Your task to perform on an android device: turn off location Image 0: 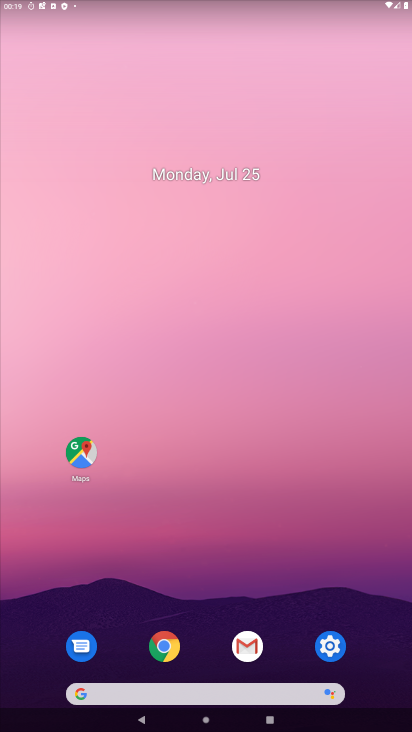
Step 0: click (336, 638)
Your task to perform on an android device: turn off location Image 1: 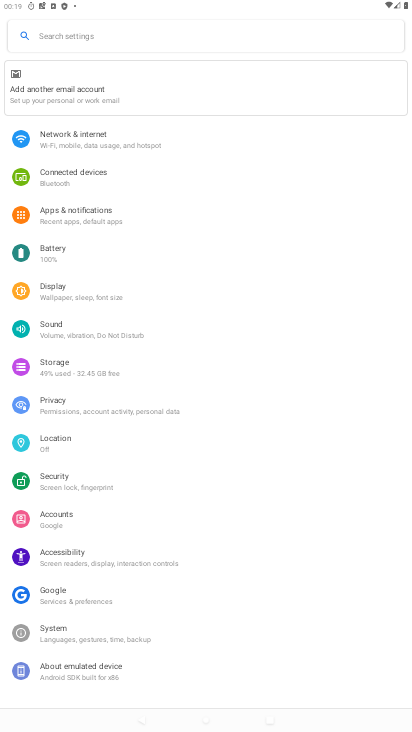
Step 1: click (58, 442)
Your task to perform on an android device: turn off location Image 2: 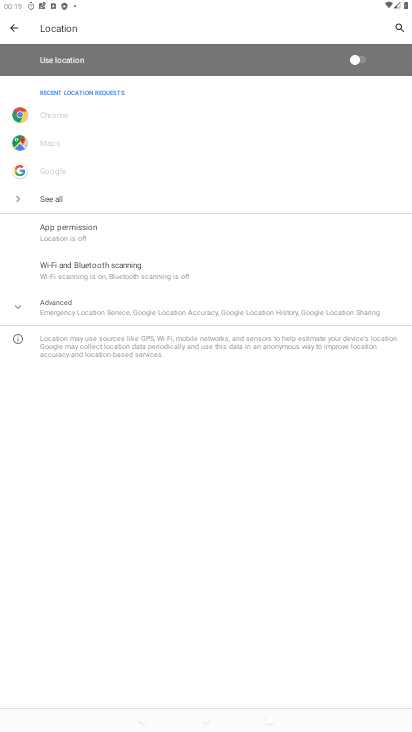
Step 2: click (358, 61)
Your task to perform on an android device: turn off location Image 3: 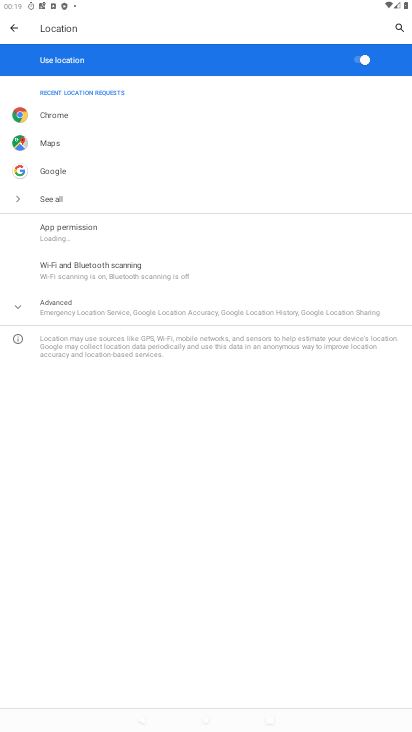
Step 3: click (356, 66)
Your task to perform on an android device: turn off location Image 4: 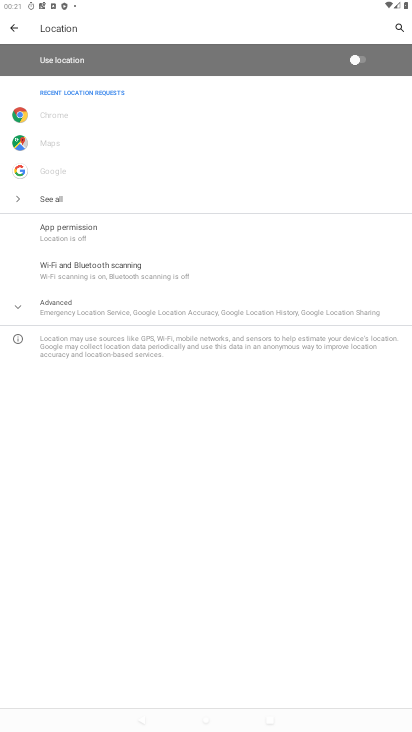
Step 4: task complete